Your task to perform on an android device: turn notification dots off Image 0: 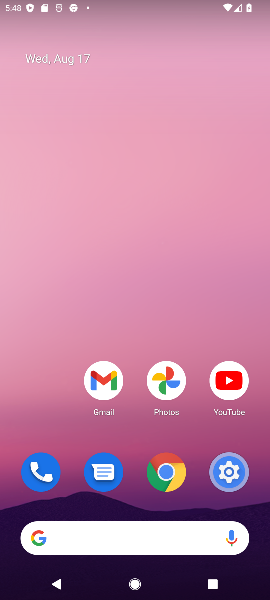
Step 0: click (217, 471)
Your task to perform on an android device: turn notification dots off Image 1: 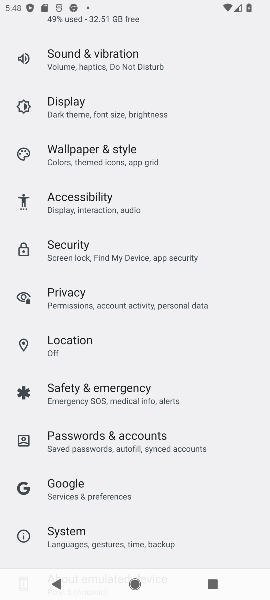
Step 1: drag from (127, 169) to (153, 350)
Your task to perform on an android device: turn notification dots off Image 2: 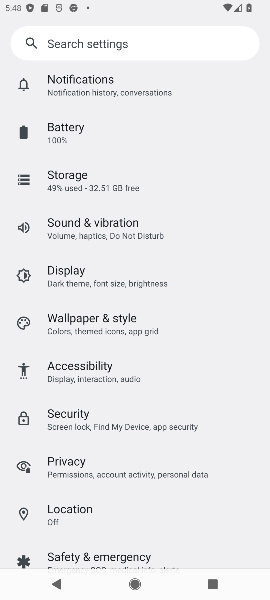
Step 2: click (106, 91)
Your task to perform on an android device: turn notification dots off Image 3: 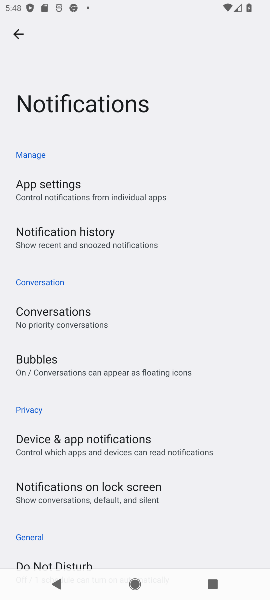
Step 3: task complete